Your task to perform on an android device: turn off notifications settings in the gmail app Image 0: 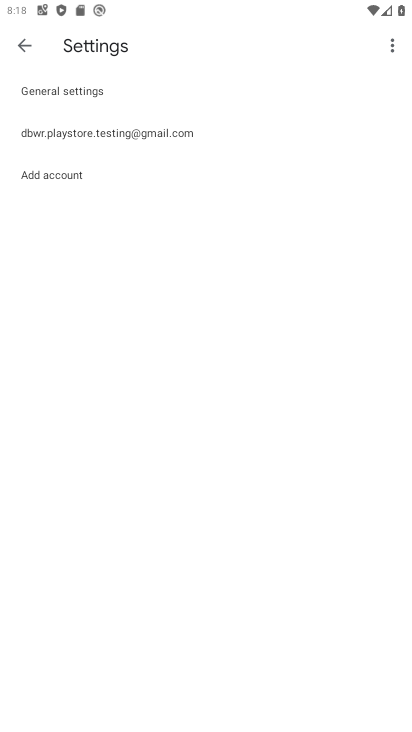
Step 0: press home button
Your task to perform on an android device: turn off notifications settings in the gmail app Image 1: 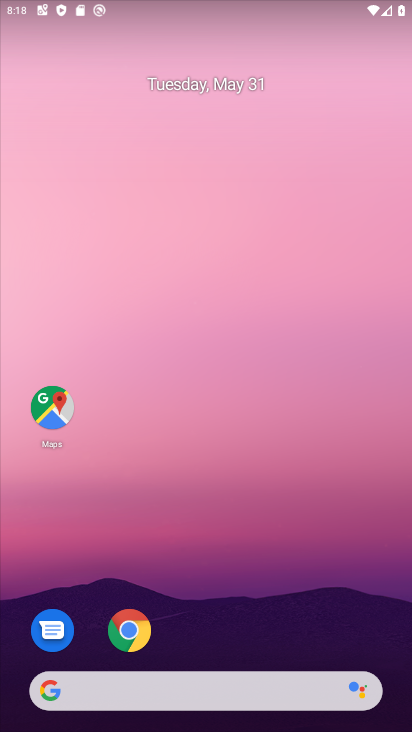
Step 1: drag from (220, 464) to (214, 175)
Your task to perform on an android device: turn off notifications settings in the gmail app Image 2: 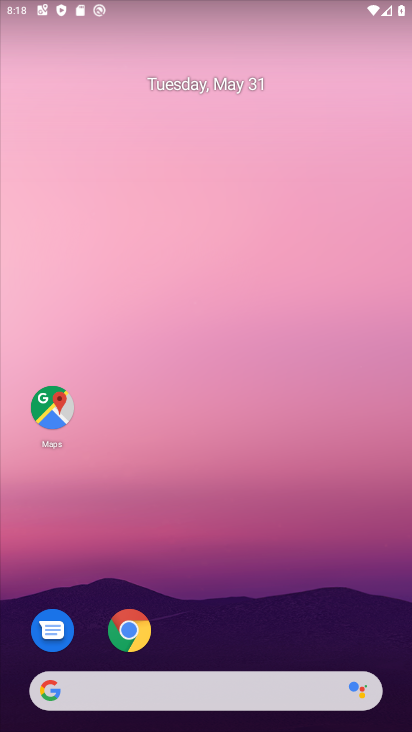
Step 2: drag from (246, 654) to (283, 134)
Your task to perform on an android device: turn off notifications settings in the gmail app Image 3: 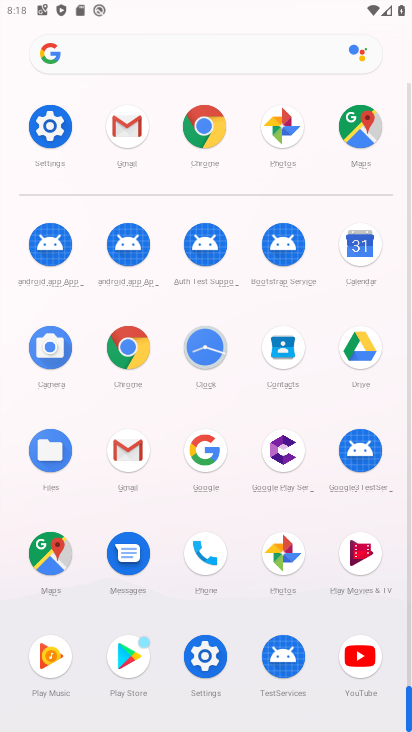
Step 3: click (118, 446)
Your task to perform on an android device: turn off notifications settings in the gmail app Image 4: 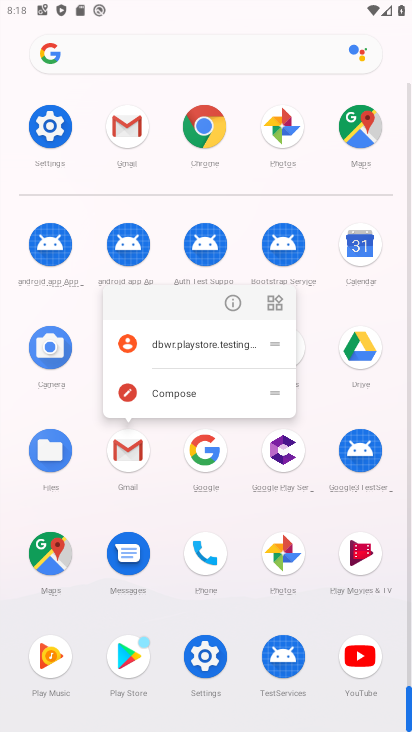
Step 4: click (341, 313)
Your task to perform on an android device: turn off notifications settings in the gmail app Image 5: 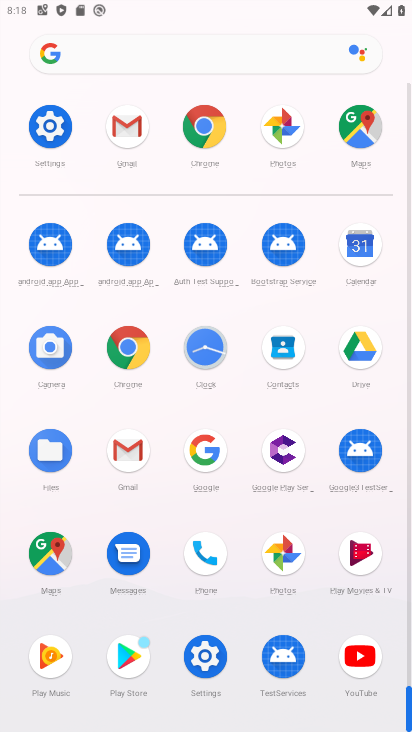
Step 5: click (129, 440)
Your task to perform on an android device: turn off notifications settings in the gmail app Image 6: 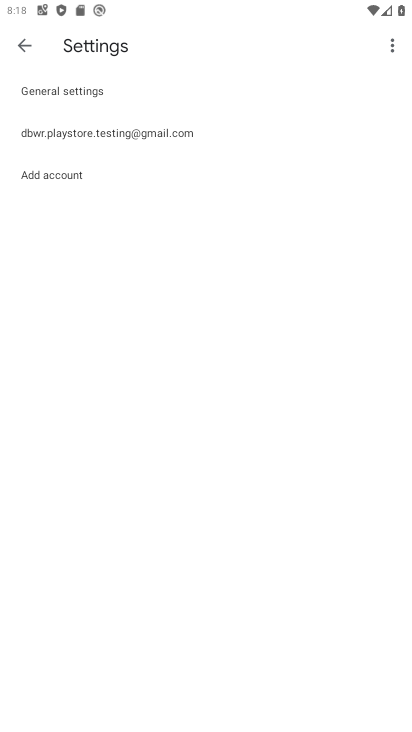
Step 6: click (78, 142)
Your task to perform on an android device: turn off notifications settings in the gmail app Image 7: 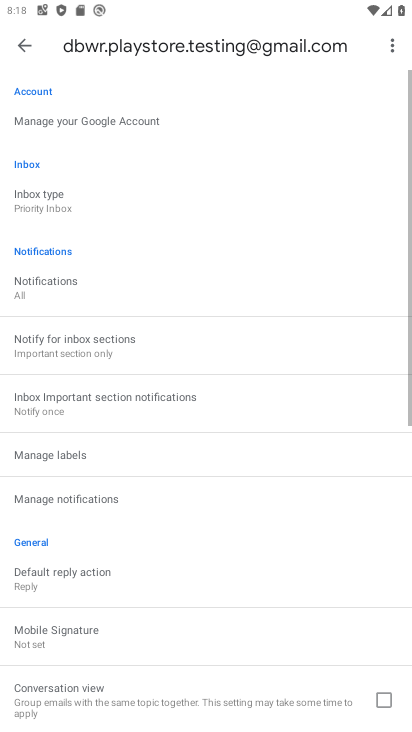
Step 7: click (64, 254)
Your task to perform on an android device: turn off notifications settings in the gmail app Image 8: 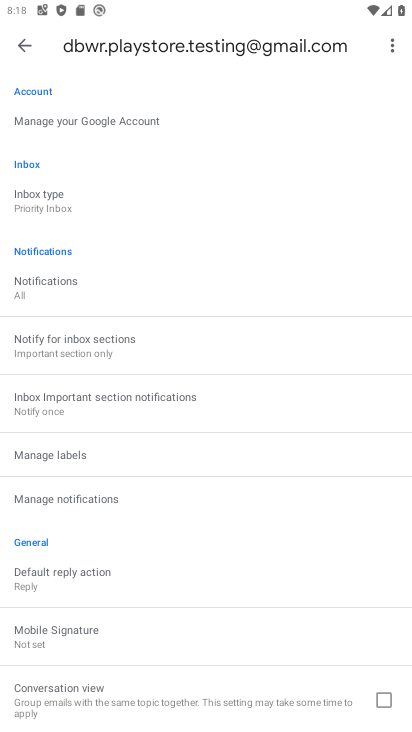
Step 8: click (68, 302)
Your task to perform on an android device: turn off notifications settings in the gmail app Image 9: 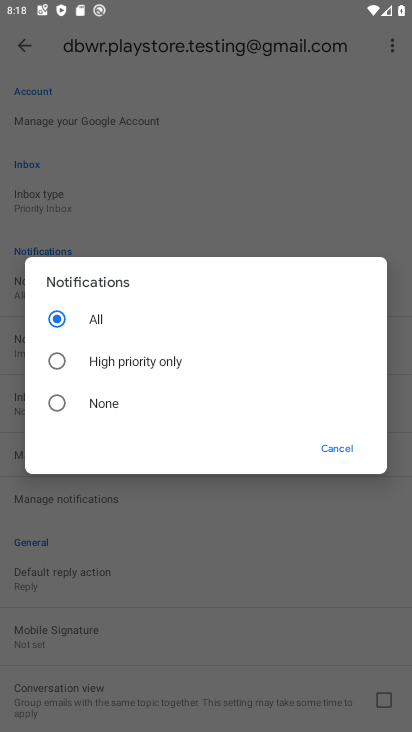
Step 9: click (112, 407)
Your task to perform on an android device: turn off notifications settings in the gmail app Image 10: 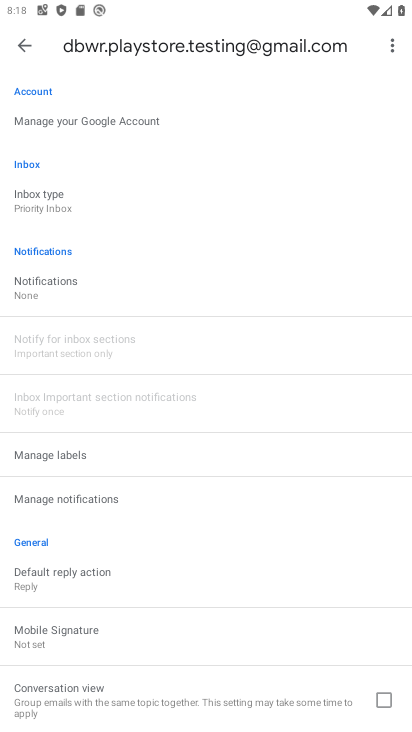
Step 10: task complete